Your task to perform on an android device: Open accessibility settings Image 0: 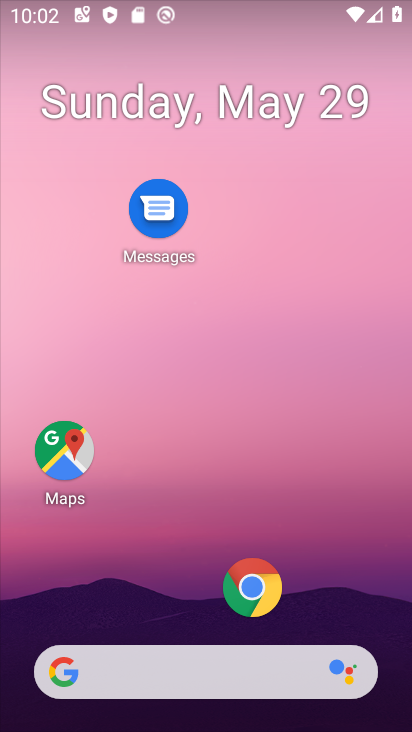
Step 0: drag from (135, 576) to (299, 40)
Your task to perform on an android device: Open accessibility settings Image 1: 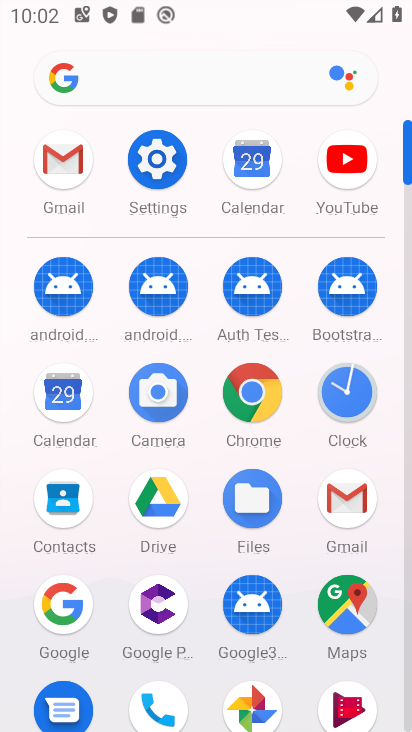
Step 1: click (148, 162)
Your task to perform on an android device: Open accessibility settings Image 2: 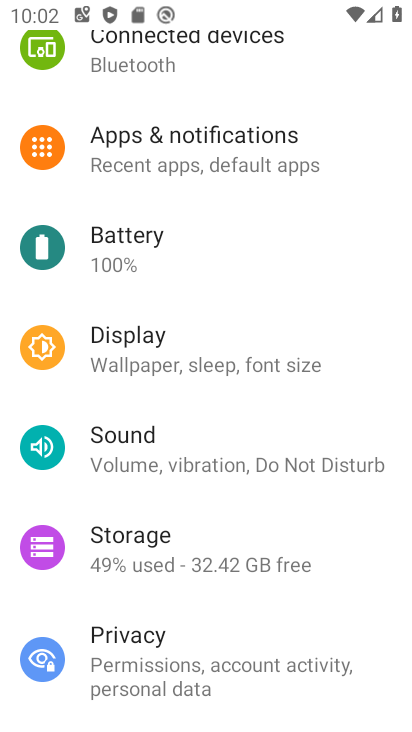
Step 2: drag from (178, 658) to (229, 115)
Your task to perform on an android device: Open accessibility settings Image 3: 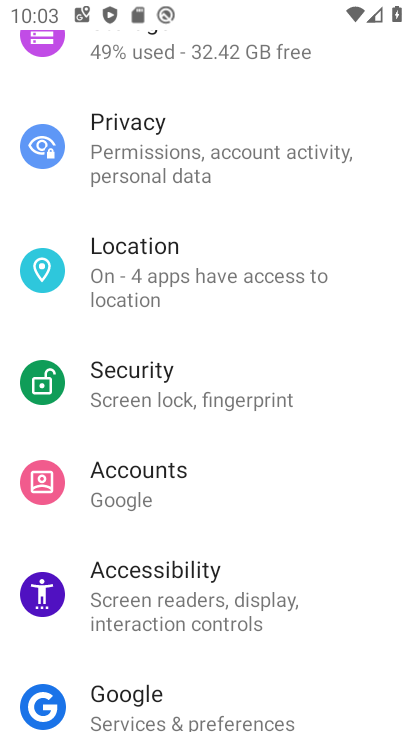
Step 3: click (137, 575)
Your task to perform on an android device: Open accessibility settings Image 4: 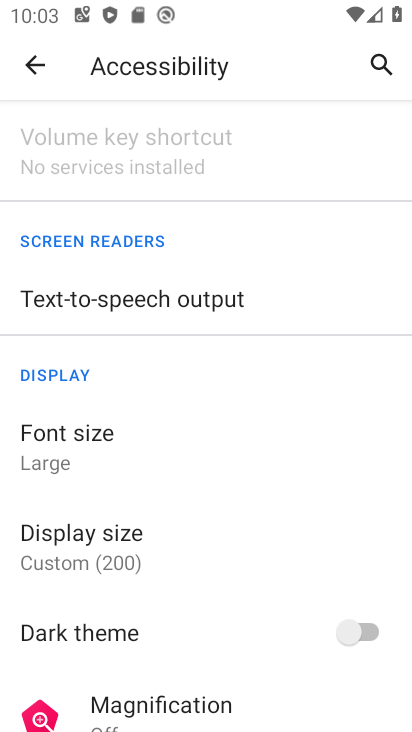
Step 4: task complete